Your task to perform on an android device: change notifications settings Image 0: 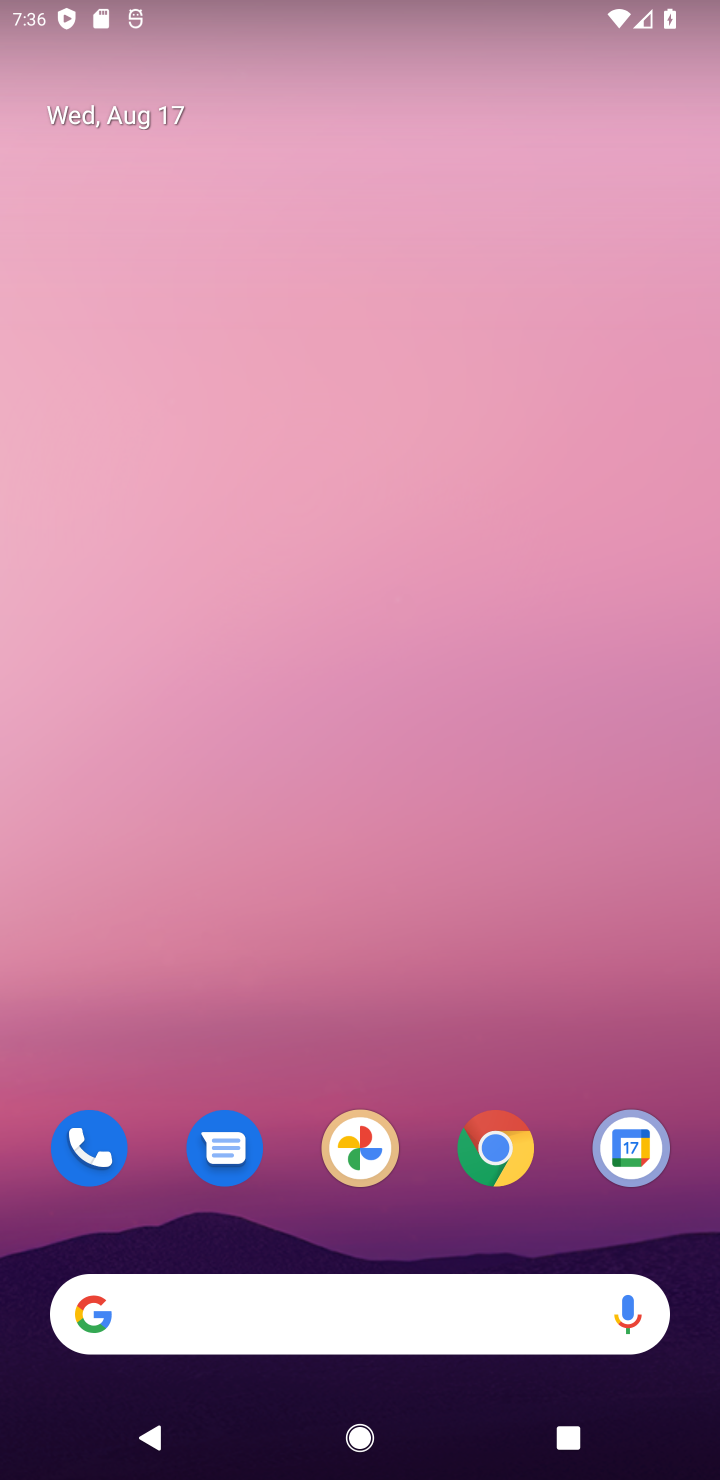
Step 0: drag from (185, 658) to (185, 363)
Your task to perform on an android device: change notifications settings Image 1: 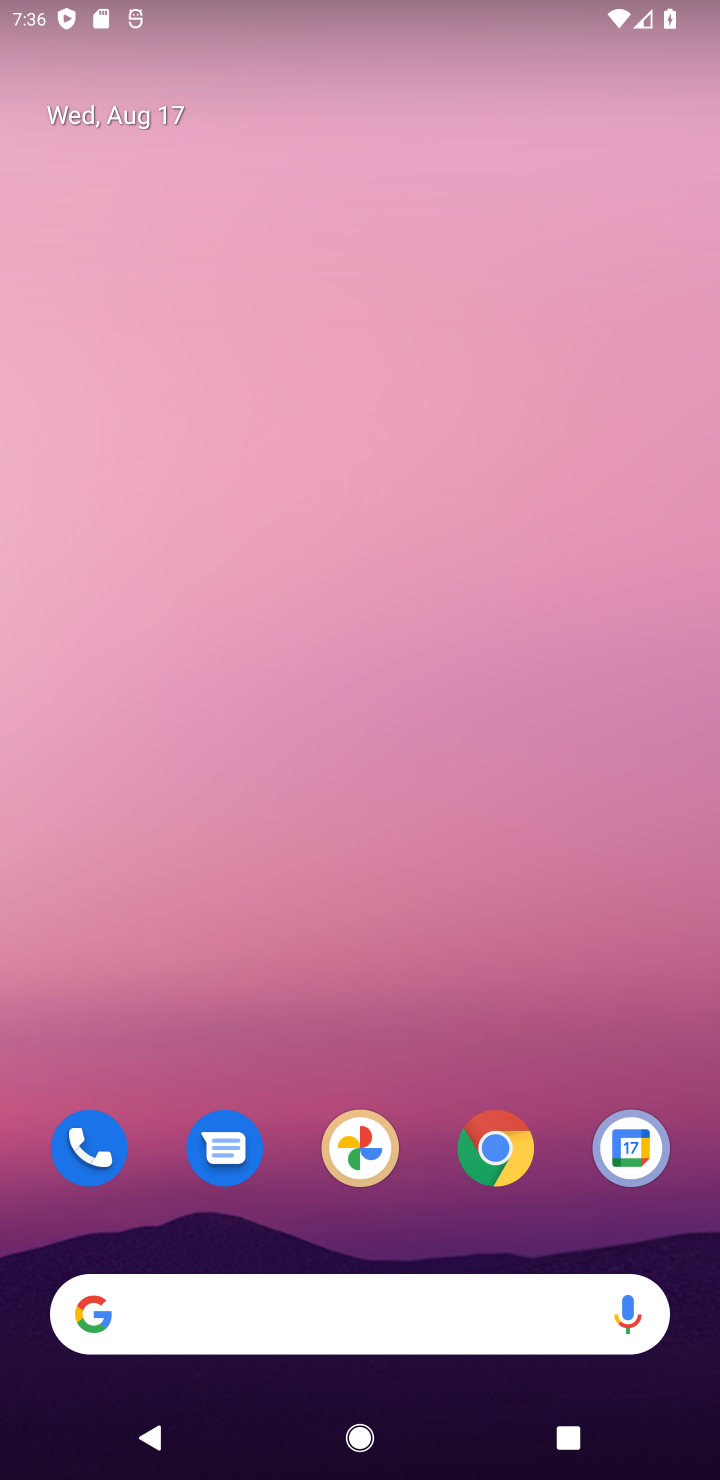
Step 1: drag from (382, 728) to (382, 173)
Your task to perform on an android device: change notifications settings Image 2: 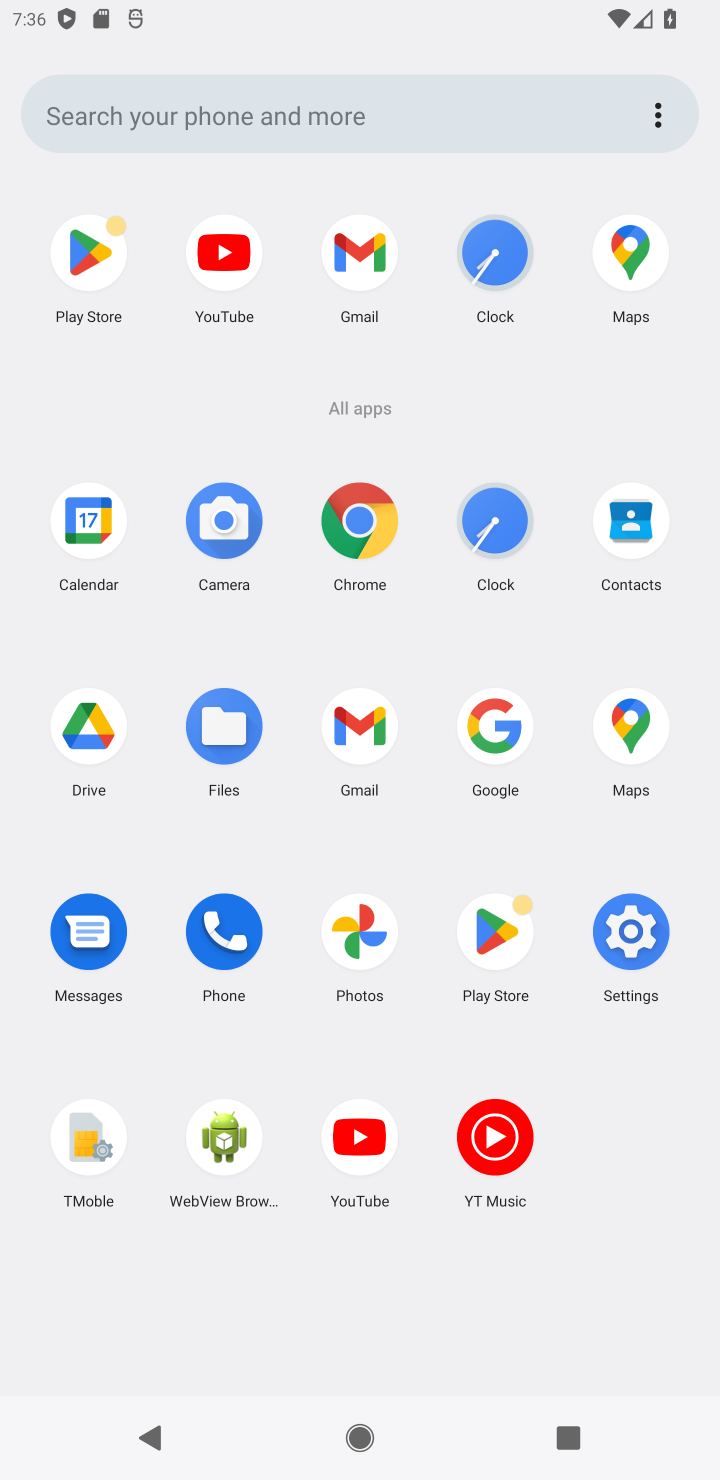
Step 2: click (606, 961)
Your task to perform on an android device: change notifications settings Image 3: 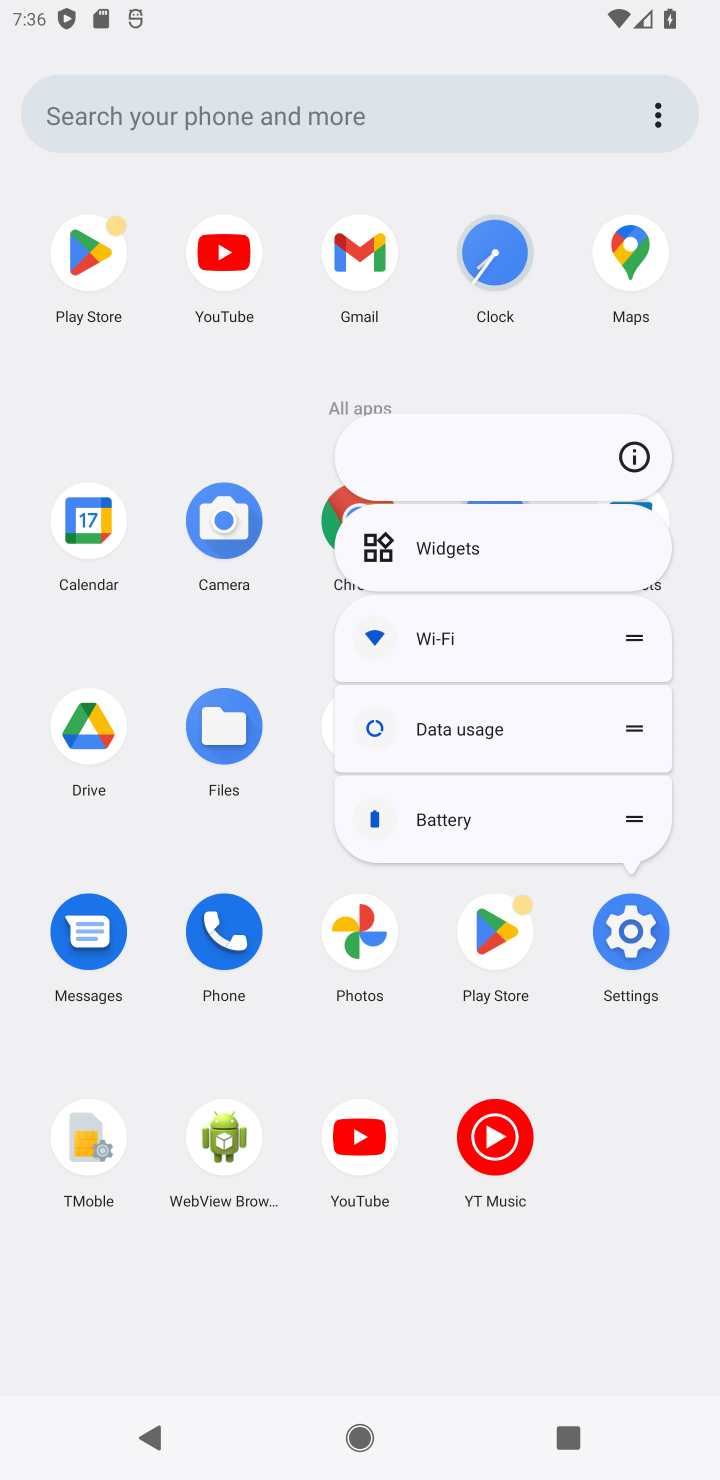
Step 3: click (615, 940)
Your task to perform on an android device: change notifications settings Image 4: 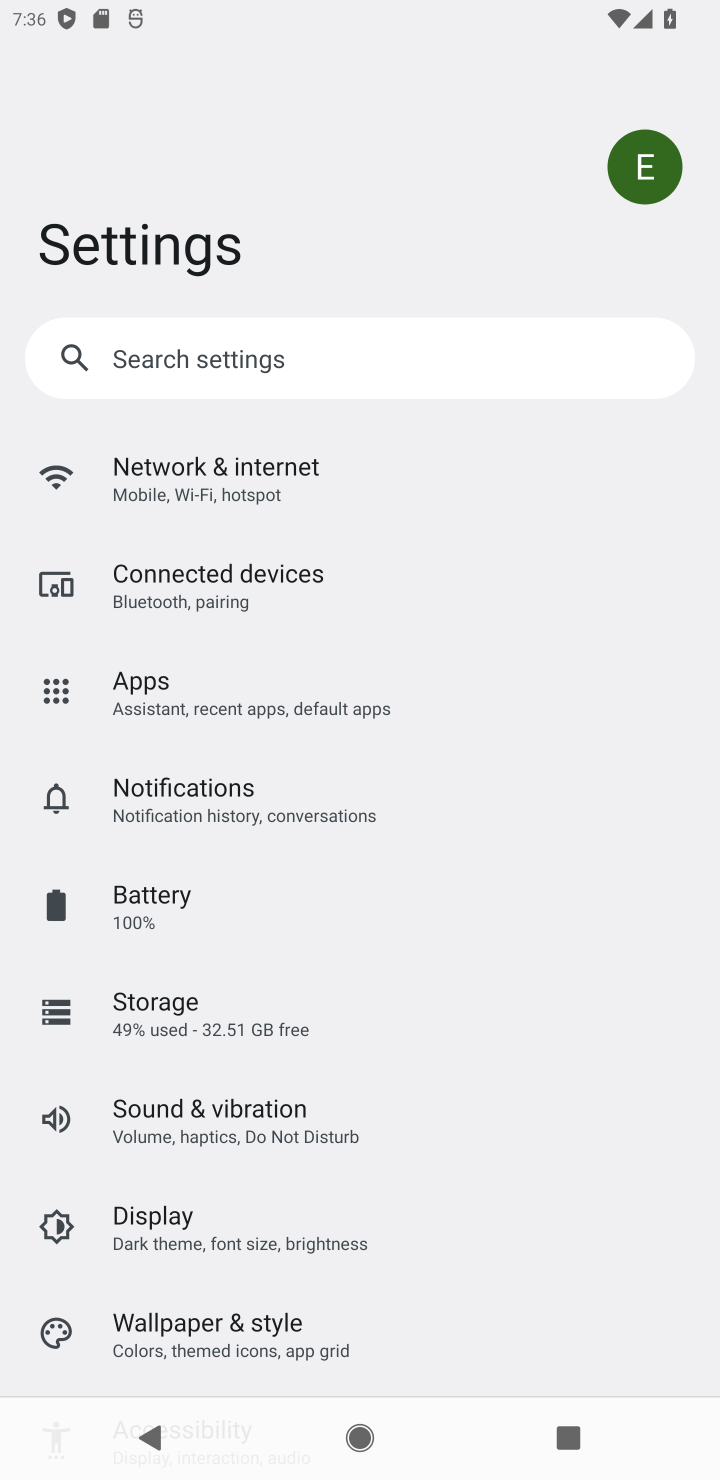
Step 4: click (152, 824)
Your task to perform on an android device: change notifications settings Image 5: 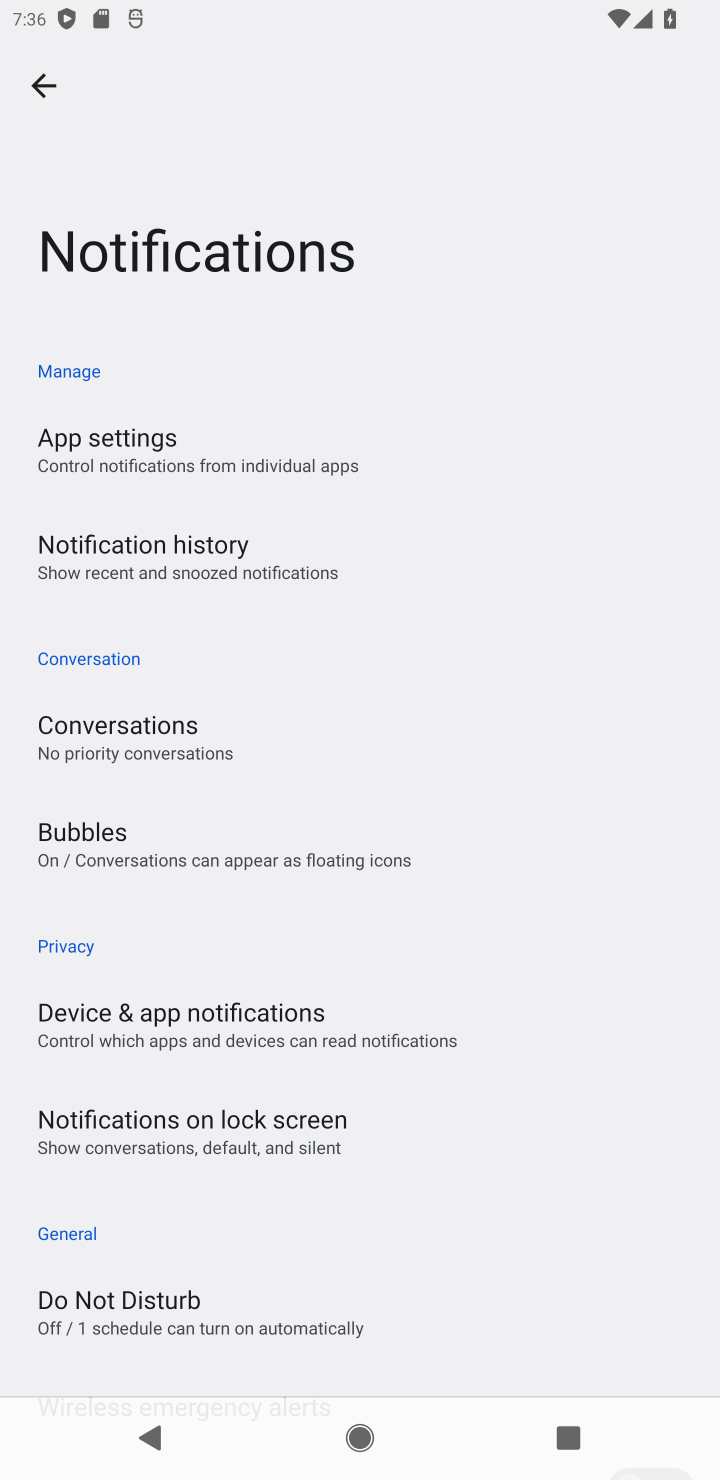
Step 5: task complete